Your task to perform on an android device: change the upload size in google photos Image 0: 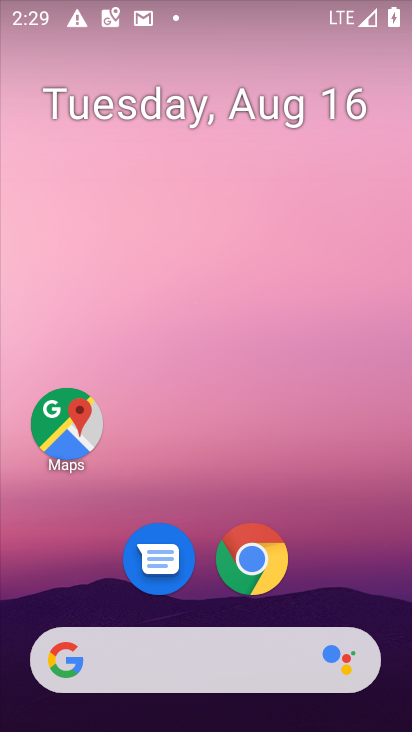
Step 0: drag from (385, 603) to (326, 110)
Your task to perform on an android device: change the upload size in google photos Image 1: 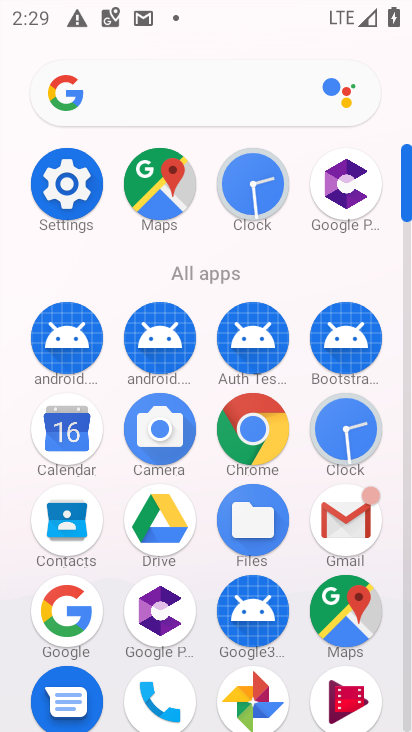
Step 1: click (405, 690)
Your task to perform on an android device: change the upload size in google photos Image 2: 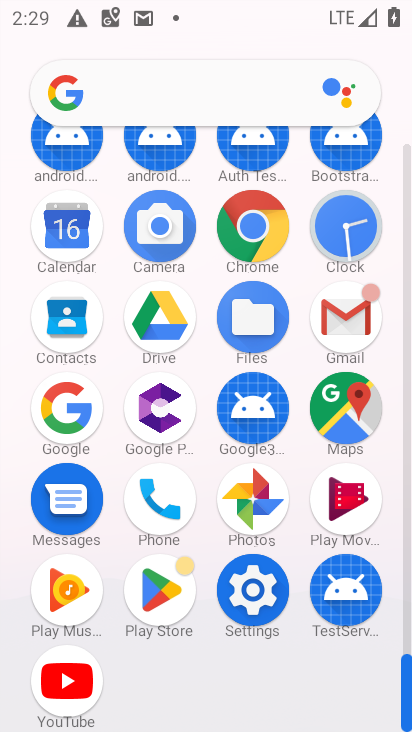
Step 2: click (253, 499)
Your task to perform on an android device: change the upload size in google photos Image 3: 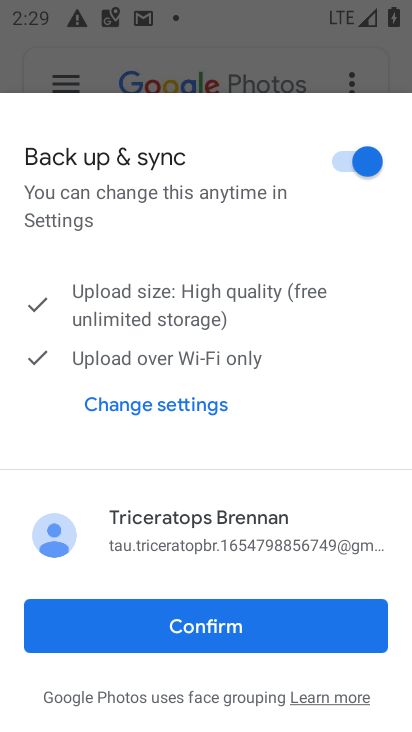
Step 3: click (197, 625)
Your task to perform on an android device: change the upload size in google photos Image 4: 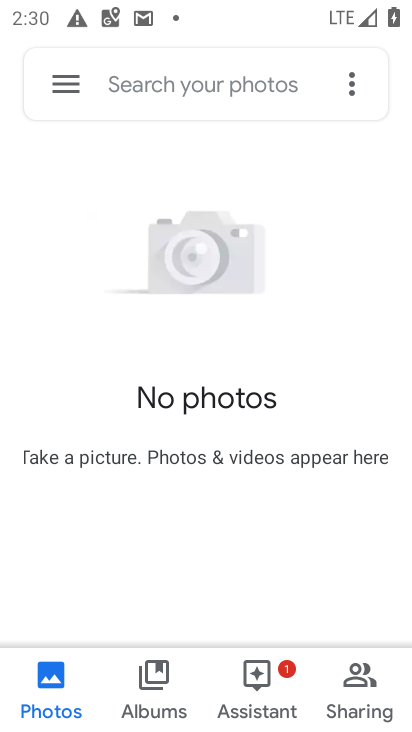
Step 4: click (66, 89)
Your task to perform on an android device: change the upload size in google photos Image 5: 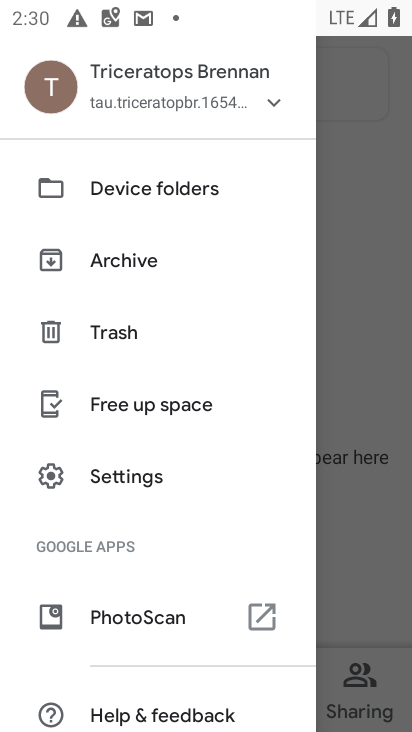
Step 5: click (139, 478)
Your task to perform on an android device: change the upload size in google photos Image 6: 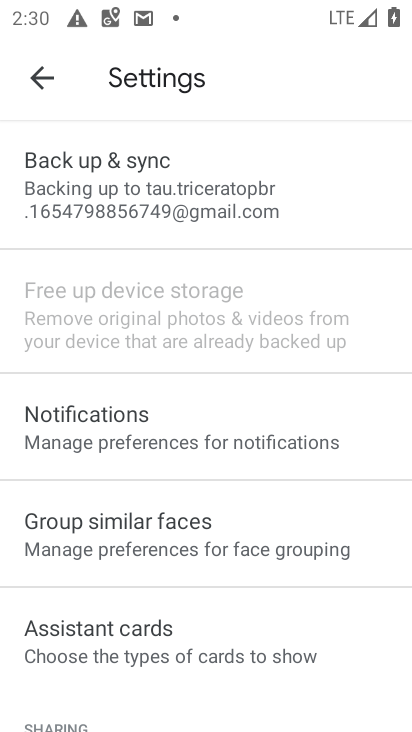
Step 6: click (134, 179)
Your task to perform on an android device: change the upload size in google photos Image 7: 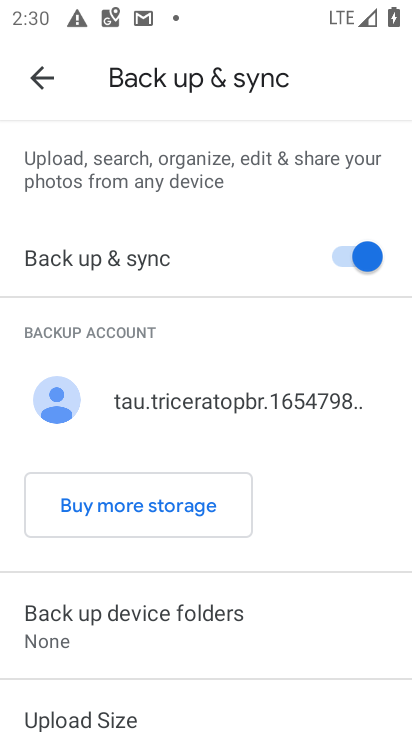
Step 7: drag from (286, 596) to (269, 188)
Your task to perform on an android device: change the upload size in google photos Image 8: 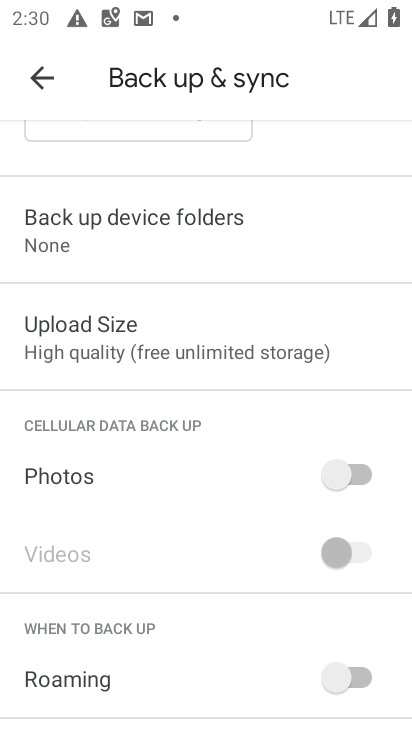
Step 8: click (82, 342)
Your task to perform on an android device: change the upload size in google photos Image 9: 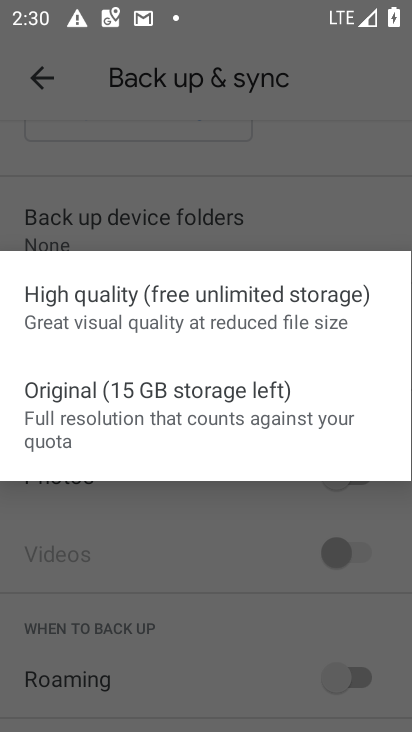
Step 9: click (97, 415)
Your task to perform on an android device: change the upload size in google photos Image 10: 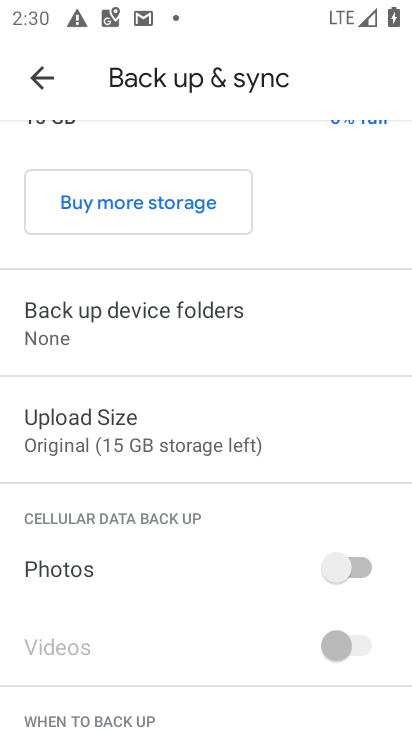
Step 10: task complete